Your task to perform on an android device: turn on improve location accuracy Image 0: 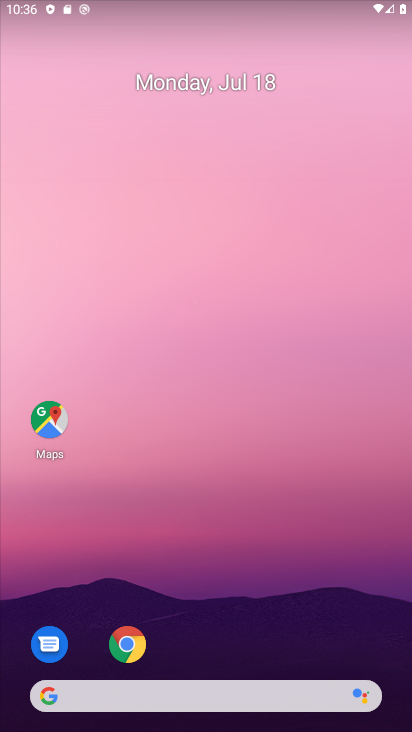
Step 0: drag from (220, 655) to (217, 159)
Your task to perform on an android device: turn on improve location accuracy Image 1: 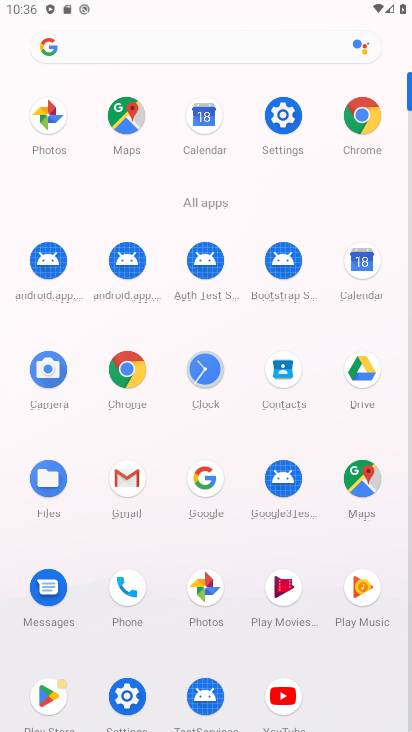
Step 1: click (278, 112)
Your task to perform on an android device: turn on improve location accuracy Image 2: 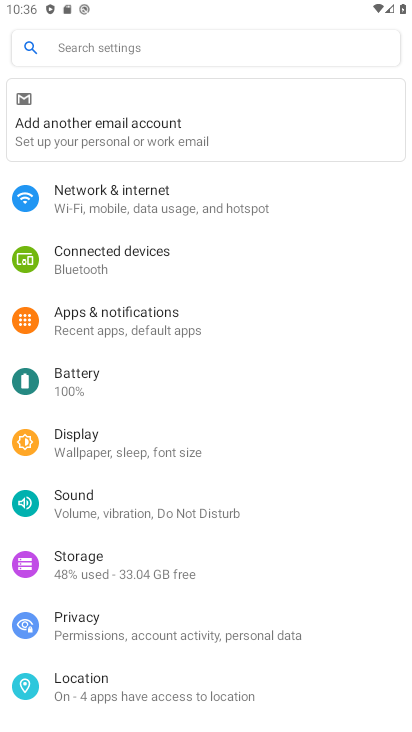
Step 2: click (106, 681)
Your task to perform on an android device: turn on improve location accuracy Image 3: 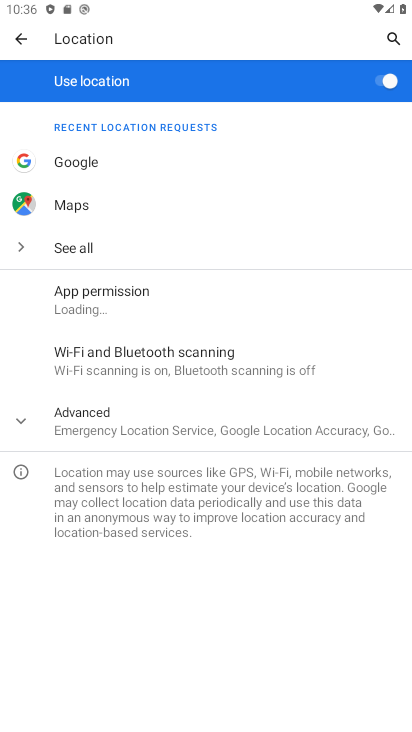
Step 3: click (96, 426)
Your task to perform on an android device: turn on improve location accuracy Image 4: 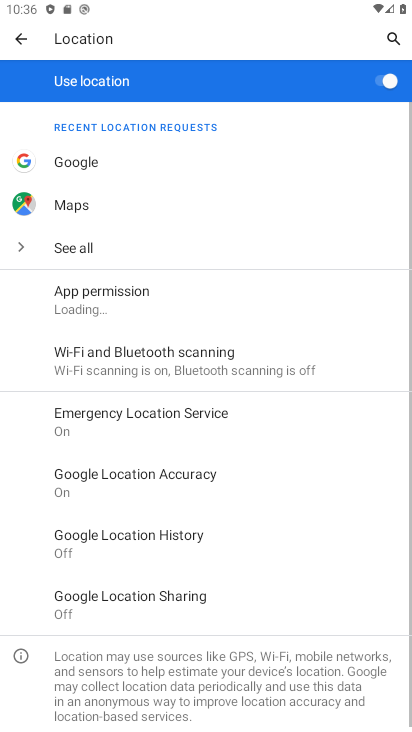
Step 4: click (180, 481)
Your task to perform on an android device: turn on improve location accuracy Image 5: 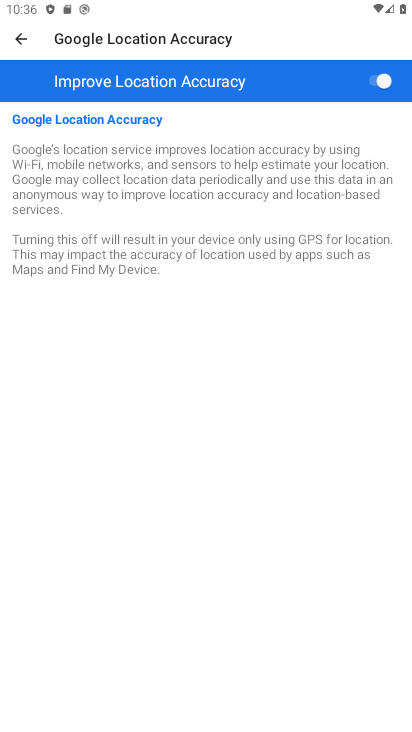
Step 5: task complete